Your task to perform on an android device: turn off smart reply in the gmail app Image 0: 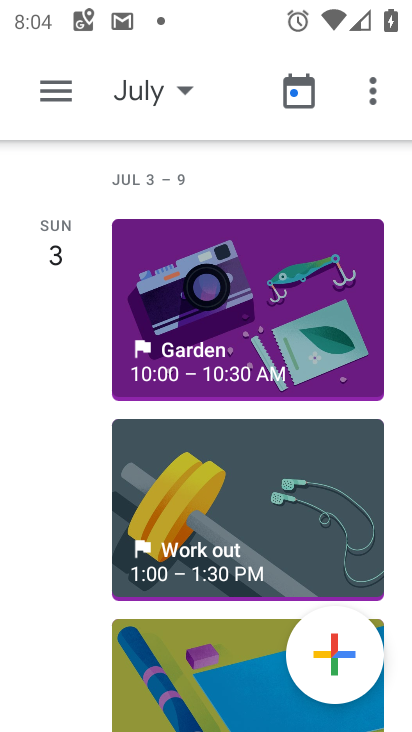
Step 0: press home button
Your task to perform on an android device: turn off smart reply in the gmail app Image 1: 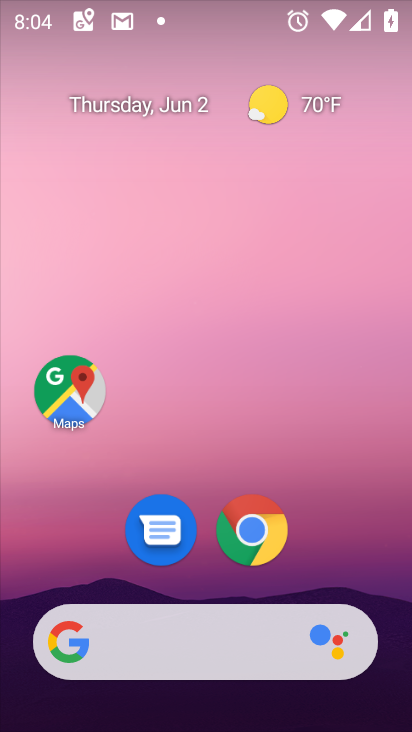
Step 1: drag from (193, 590) to (192, 300)
Your task to perform on an android device: turn off smart reply in the gmail app Image 2: 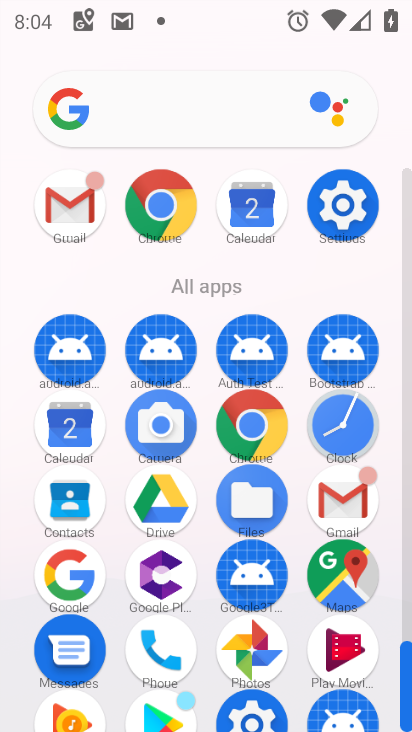
Step 2: click (81, 205)
Your task to perform on an android device: turn off smart reply in the gmail app Image 3: 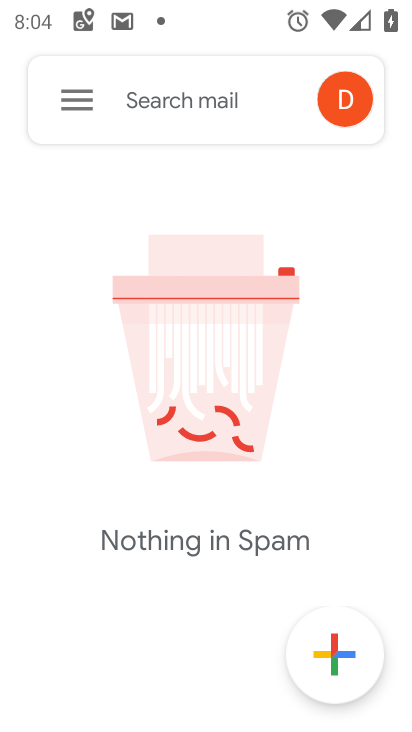
Step 3: click (94, 96)
Your task to perform on an android device: turn off smart reply in the gmail app Image 4: 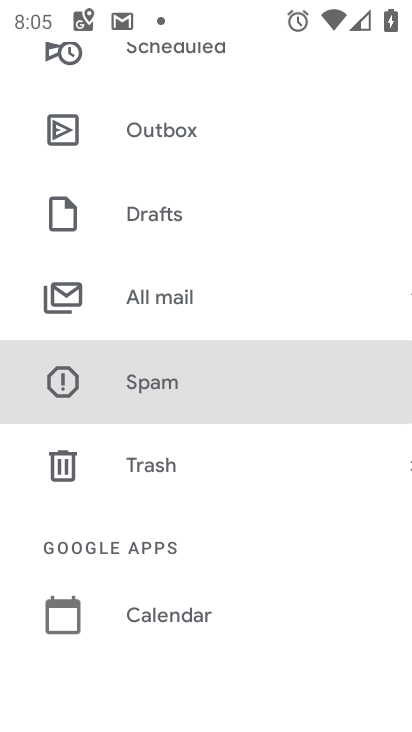
Step 4: drag from (155, 657) to (180, 262)
Your task to perform on an android device: turn off smart reply in the gmail app Image 5: 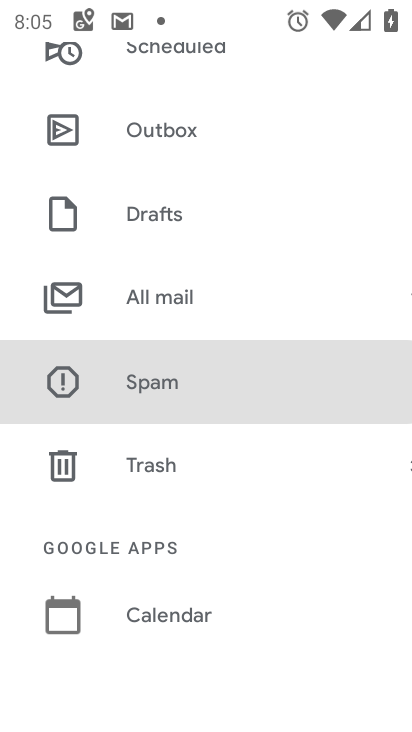
Step 5: drag from (148, 649) to (145, 331)
Your task to perform on an android device: turn off smart reply in the gmail app Image 6: 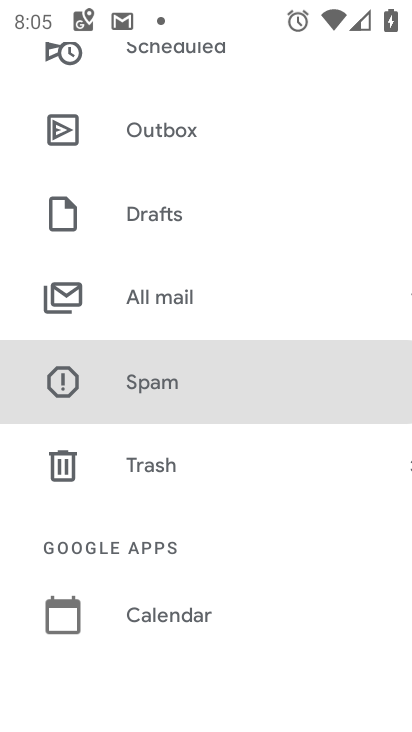
Step 6: drag from (124, 650) to (150, 198)
Your task to perform on an android device: turn off smart reply in the gmail app Image 7: 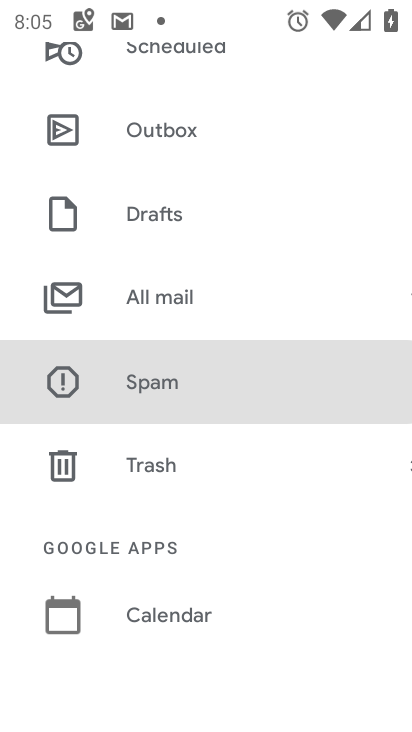
Step 7: drag from (151, 693) to (172, 133)
Your task to perform on an android device: turn off smart reply in the gmail app Image 8: 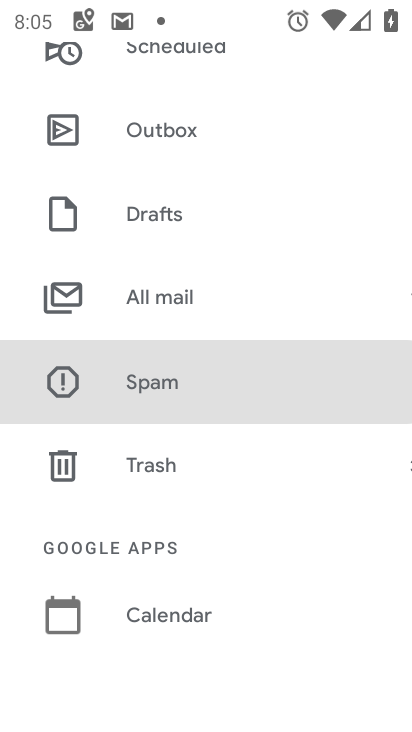
Step 8: drag from (115, 558) to (178, 159)
Your task to perform on an android device: turn off smart reply in the gmail app Image 9: 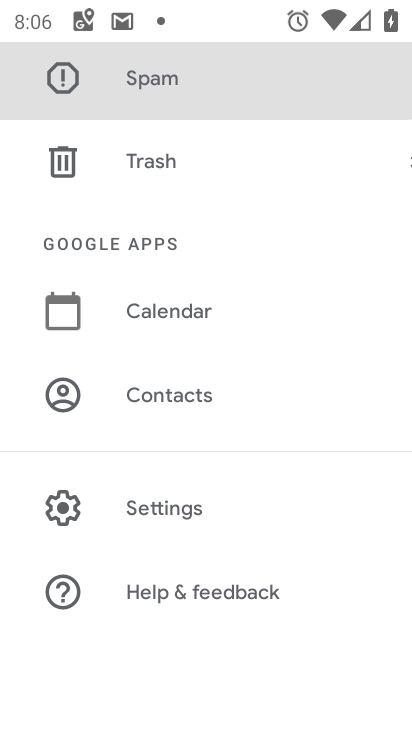
Step 9: click (184, 507)
Your task to perform on an android device: turn off smart reply in the gmail app Image 10: 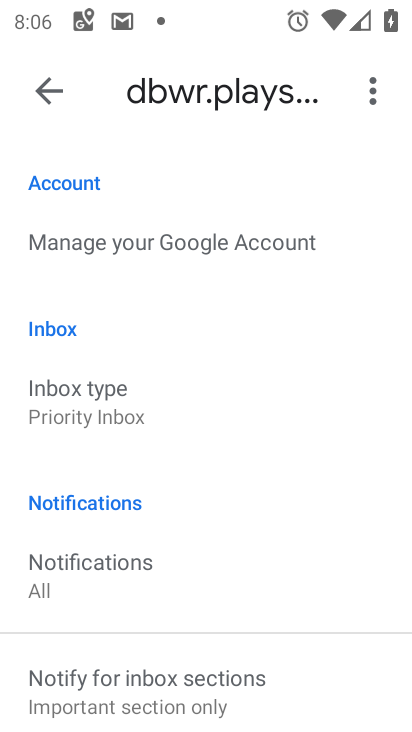
Step 10: drag from (62, 667) to (89, 393)
Your task to perform on an android device: turn off smart reply in the gmail app Image 11: 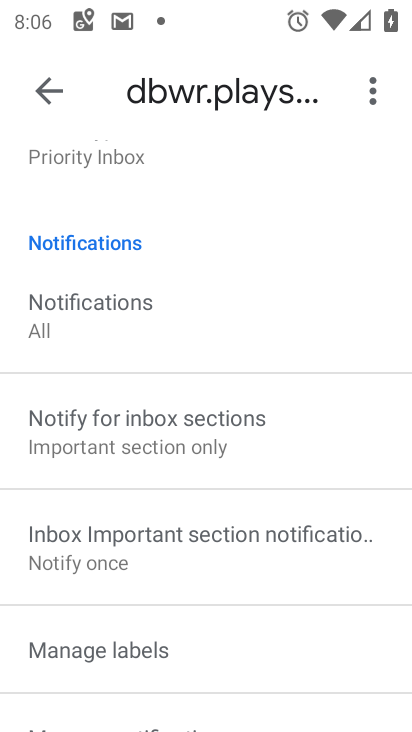
Step 11: drag from (50, 690) to (84, 423)
Your task to perform on an android device: turn off smart reply in the gmail app Image 12: 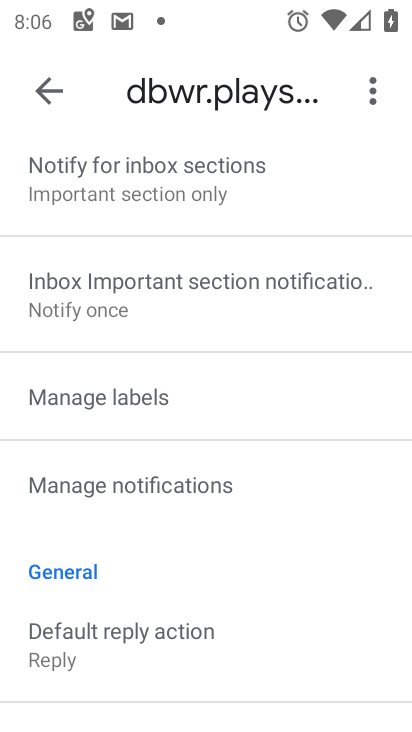
Step 12: drag from (111, 701) to (161, 361)
Your task to perform on an android device: turn off smart reply in the gmail app Image 13: 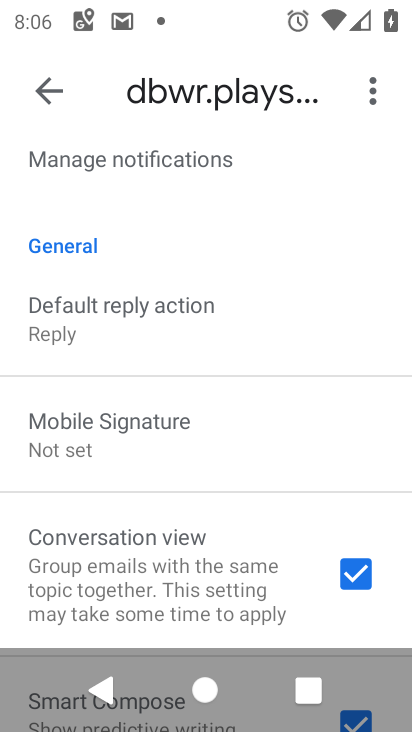
Step 13: drag from (120, 589) to (149, 354)
Your task to perform on an android device: turn off smart reply in the gmail app Image 14: 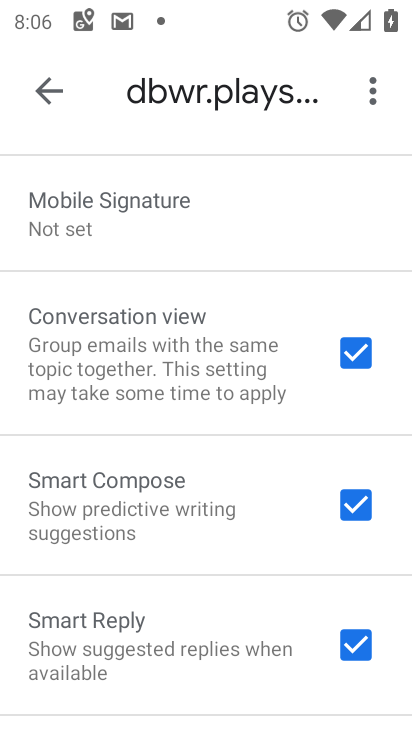
Step 14: click (344, 641)
Your task to perform on an android device: turn off smart reply in the gmail app Image 15: 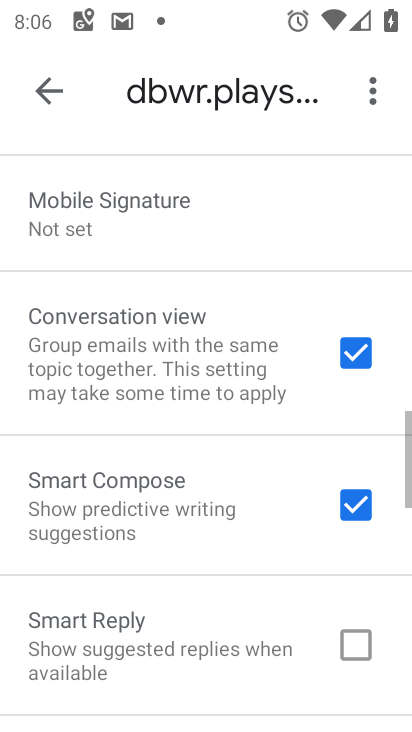
Step 15: task complete